Your task to perform on an android device: delete the emails in spam in the gmail app Image 0: 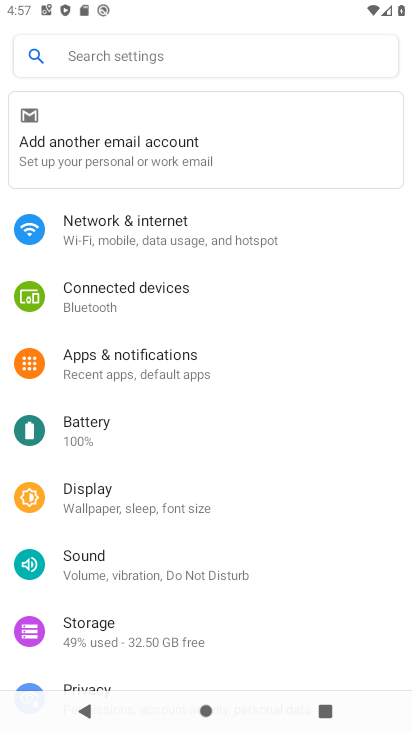
Step 0: press home button
Your task to perform on an android device: delete the emails in spam in the gmail app Image 1: 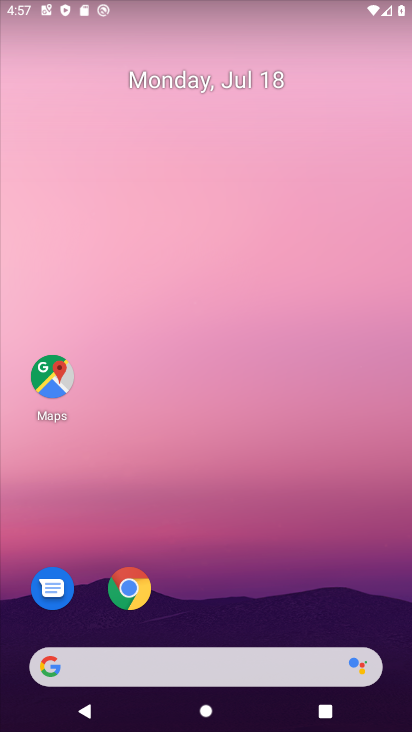
Step 1: drag from (310, 591) to (220, 97)
Your task to perform on an android device: delete the emails in spam in the gmail app Image 2: 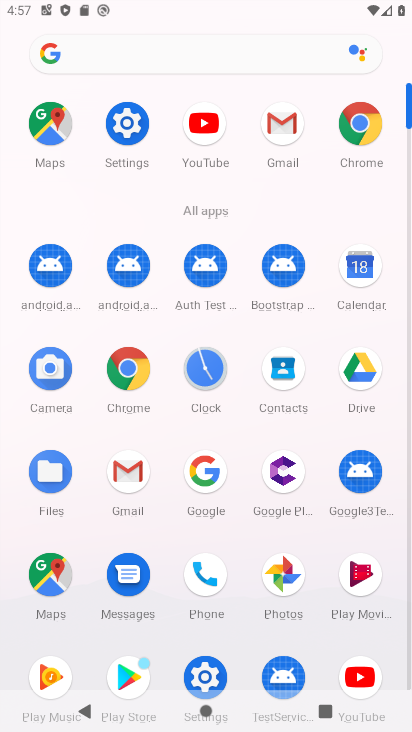
Step 2: click (283, 127)
Your task to perform on an android device: delete the emails in spam in the gmail app Image 3: 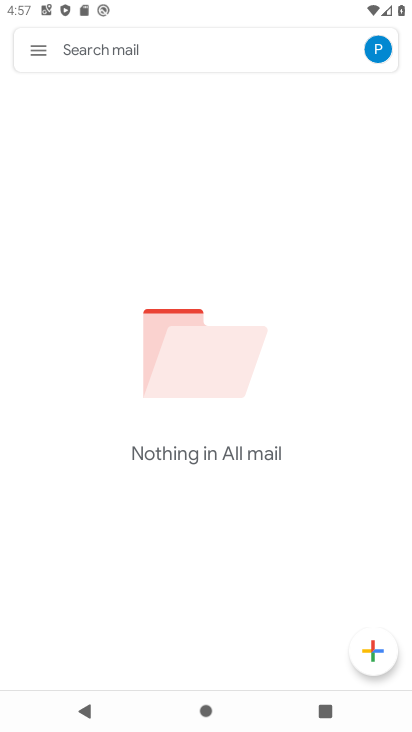
Step 3: click (36, 55)
Your task to perform on an android device: delete the emails in spam in the gmail app Image 4: 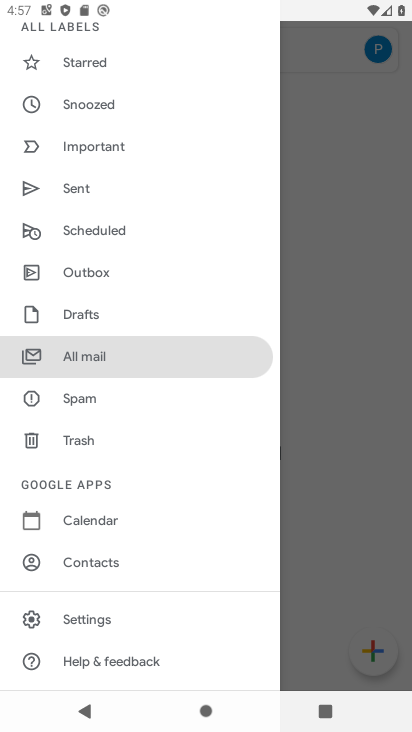
Step 4: click (108, 394)
Your task to perform on an android device: delete the emails in spam in the gmail app Image 5: 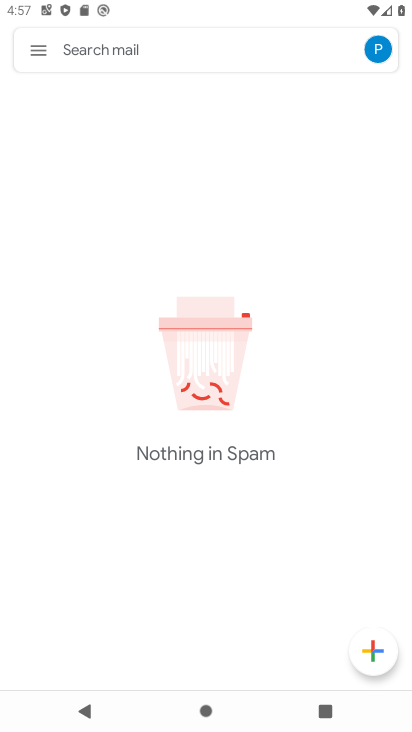
Step 5: task complete